Your task to perform on an android device: open app "Instagram" (install if not already installed) Image 0: 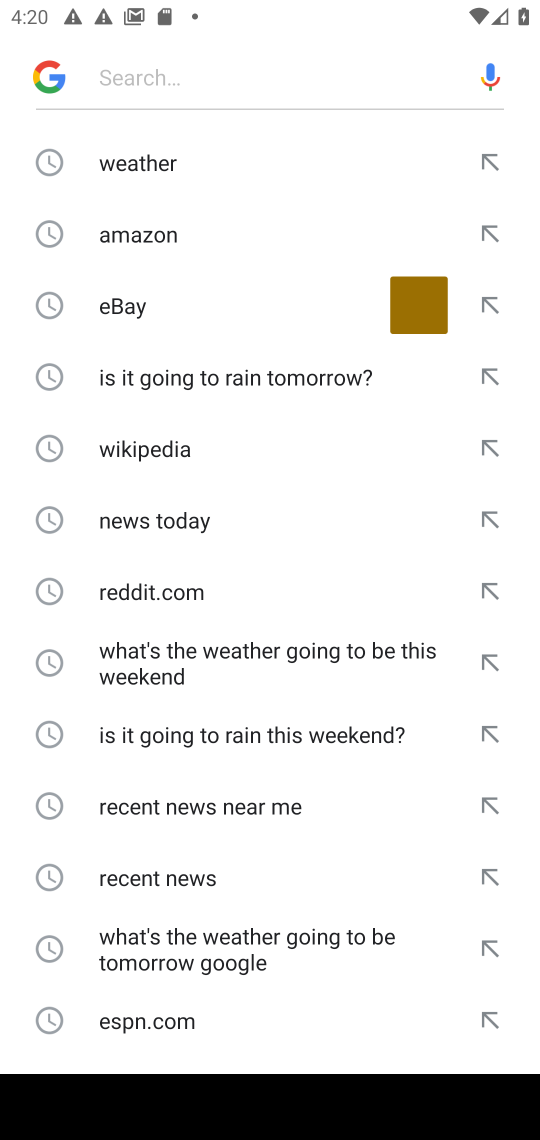
Step 0: press home button
Your task to perform on an android device: open app "Instagram" (install if not already installed) Image 1: 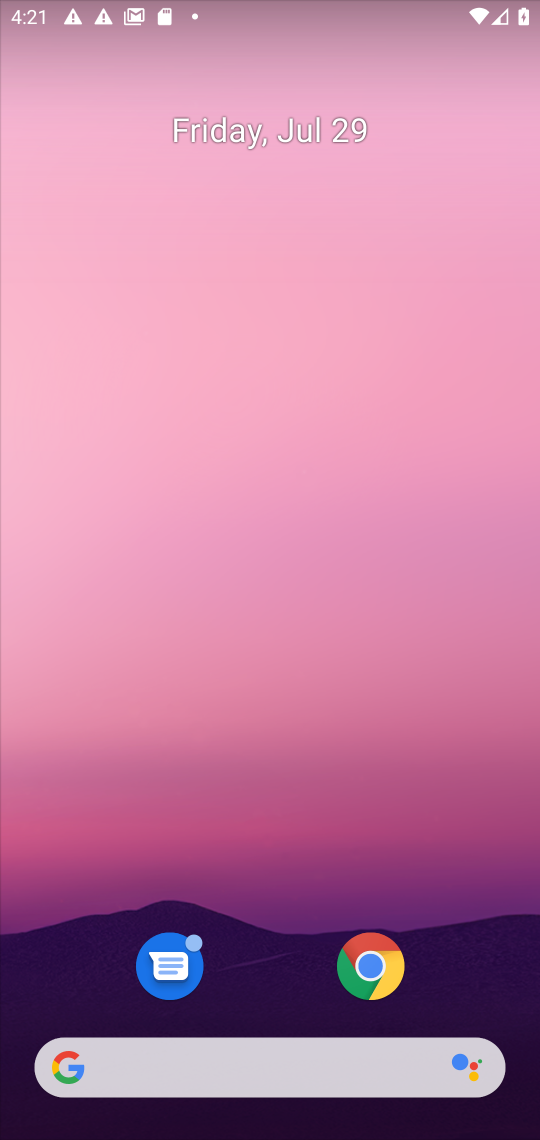
Step 1: drag from (250, 969) to (291, 4)
Your task to perform on an android device: open app "Instagram" (install if not already installed) Image 2: 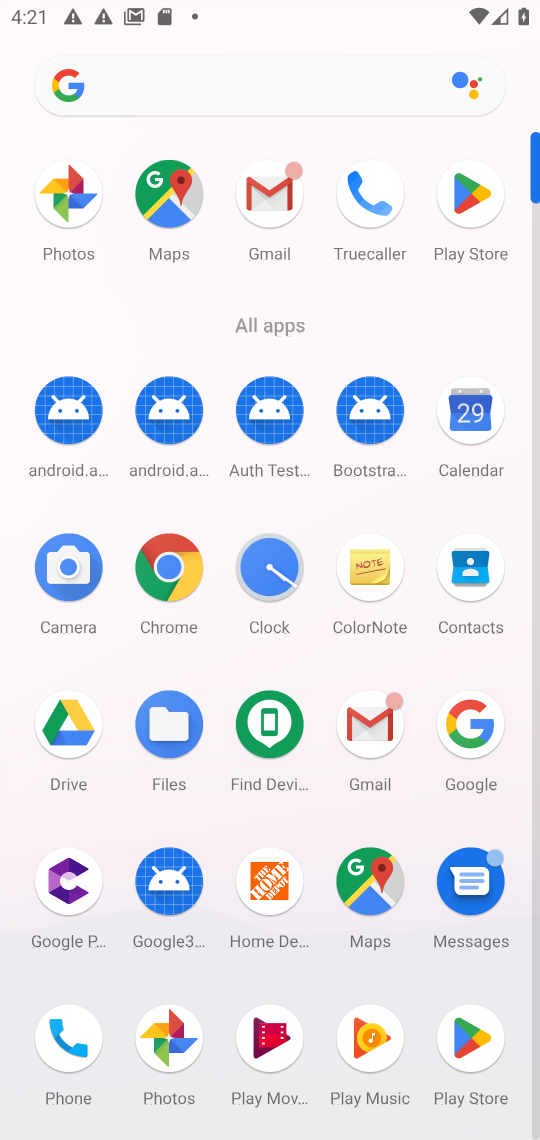
Step 2: click (471, 1068)
Your task to perform on an android device: open app "Instagram" (install if not already installed) Image 3: 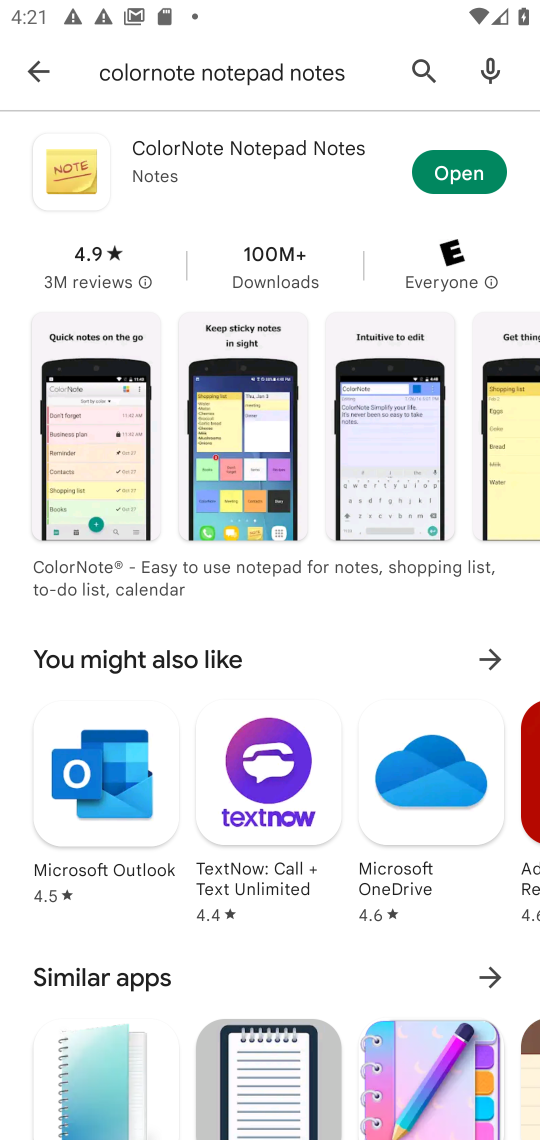
Step 3: click (188, 75)
Your task to perform on an android device: open app "Instagram" (install if not already installed) Image 4: 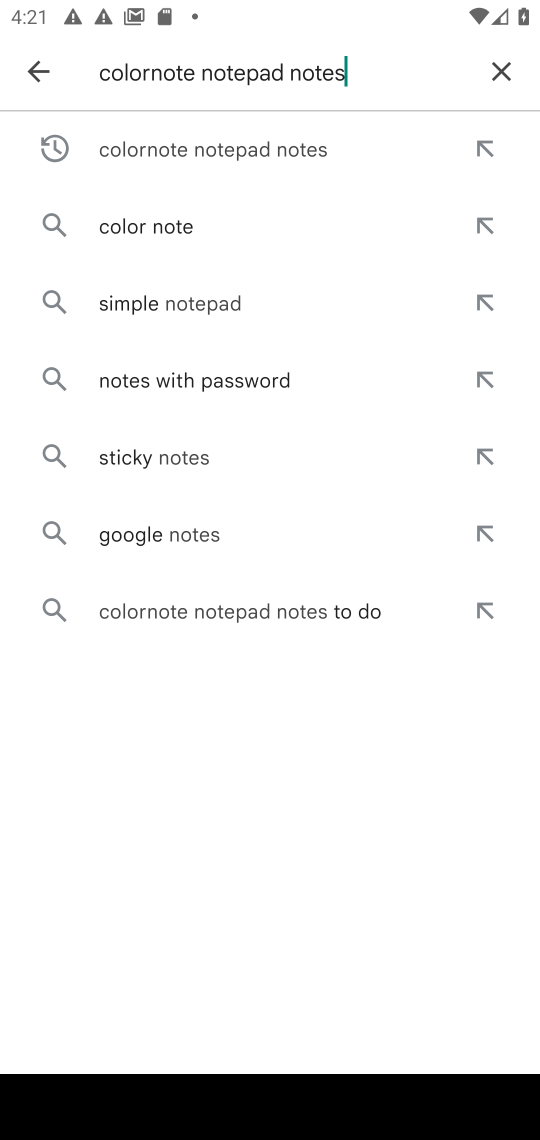
Step 4: click (492, 71)
Your task to perform on an android device: open app "Instagram" (install if not already installed) Image 5: 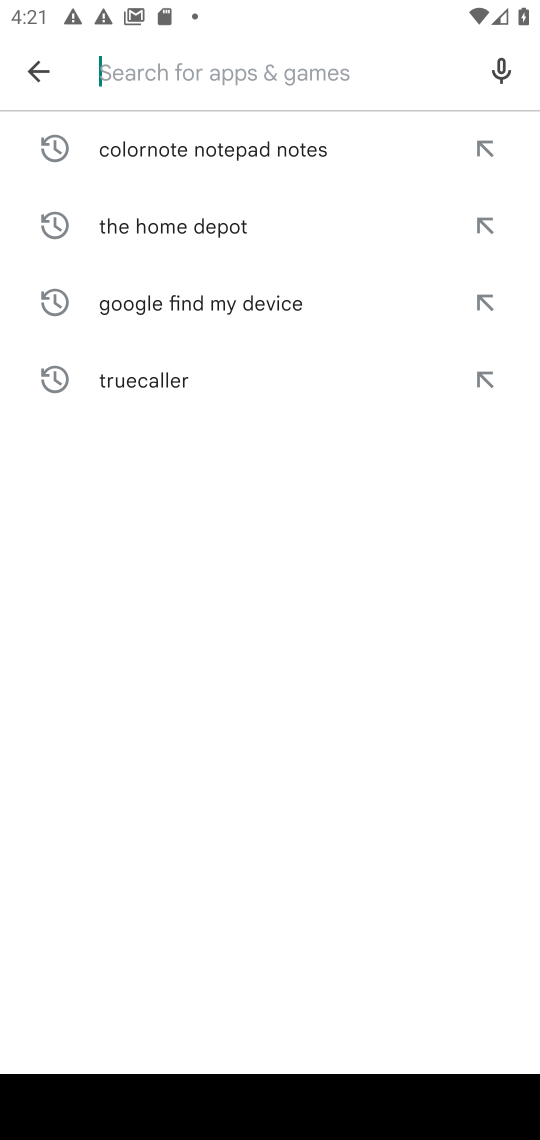
Step 5: type "Instagram"
Your task to perform on an android device: open app "Instagram" (install if not already installed) Image 6: 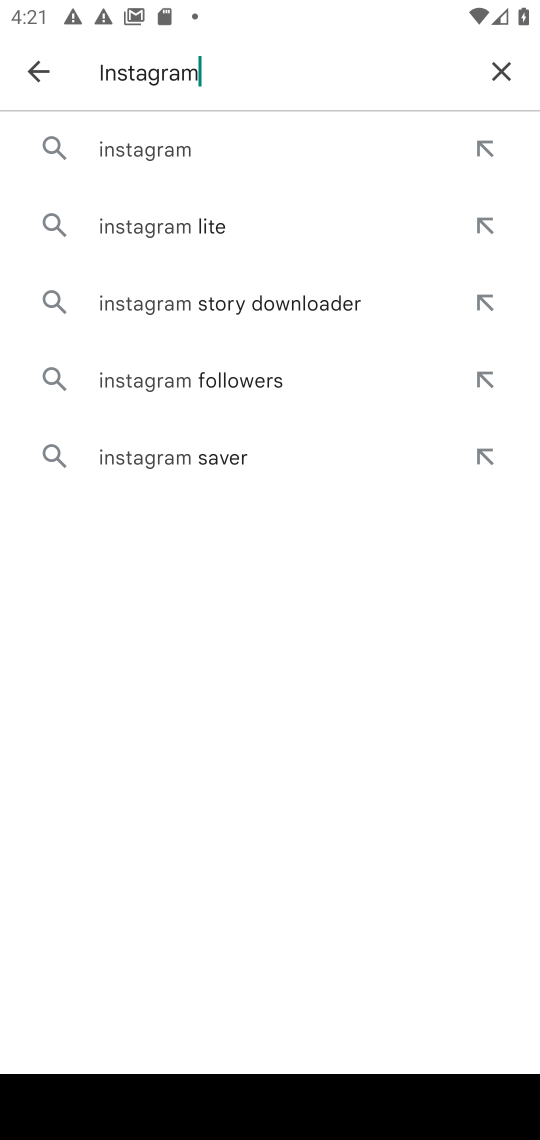
Step 6: click (117, 134)
Your task to perform on an android device: open app "Instagram" (install if not already installed) Image 7: 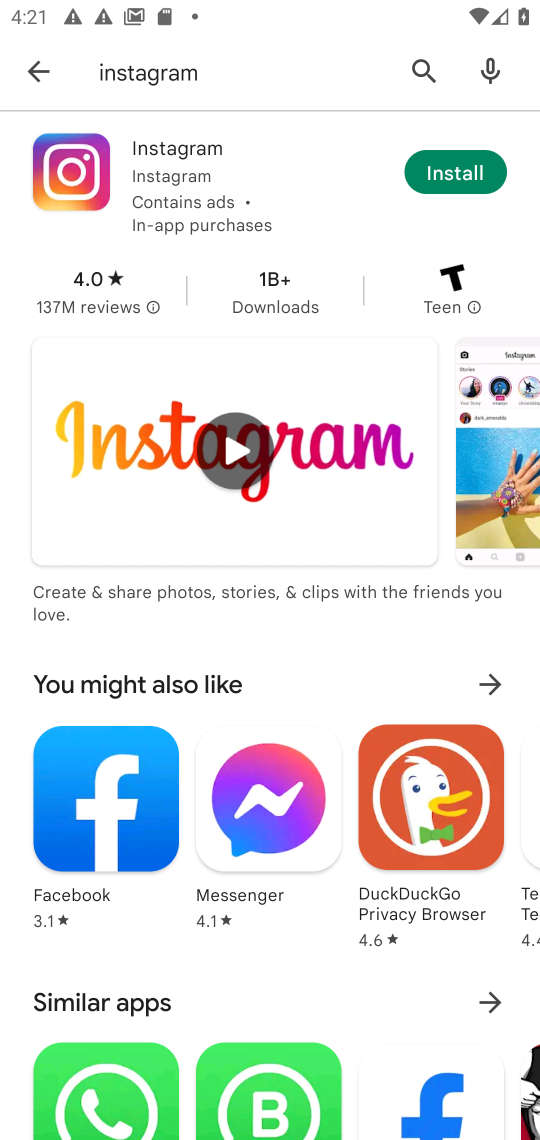
Step 7: click (448, 171)
Your task to perform on an android device: open app "Instagram" (install if not already installed) Image 8: 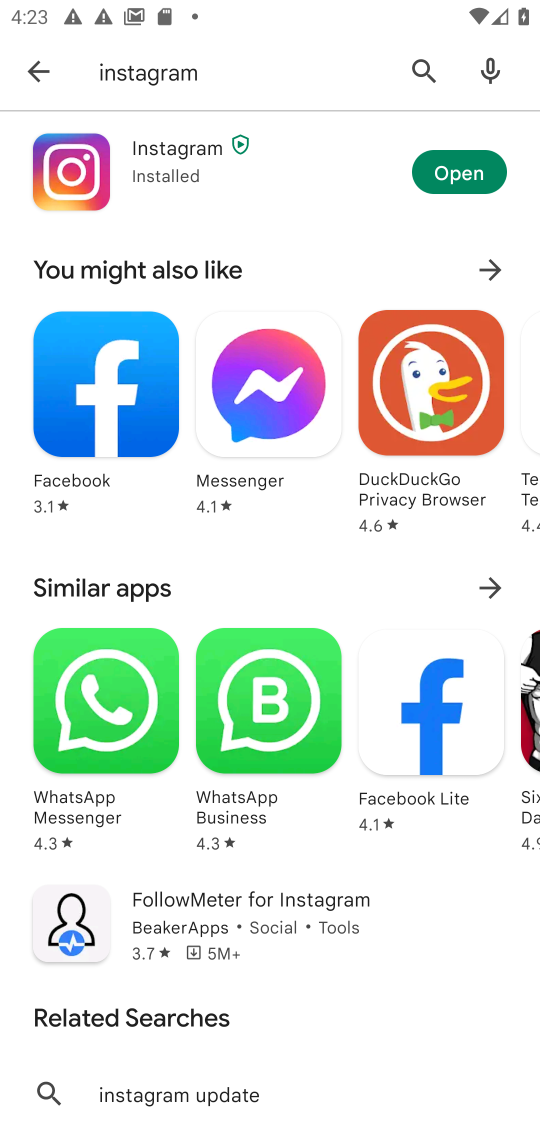
Step 8: click (438, 169)
Your task to perform on an android device: open app "Instagram" (install if not already installed) Image 9: 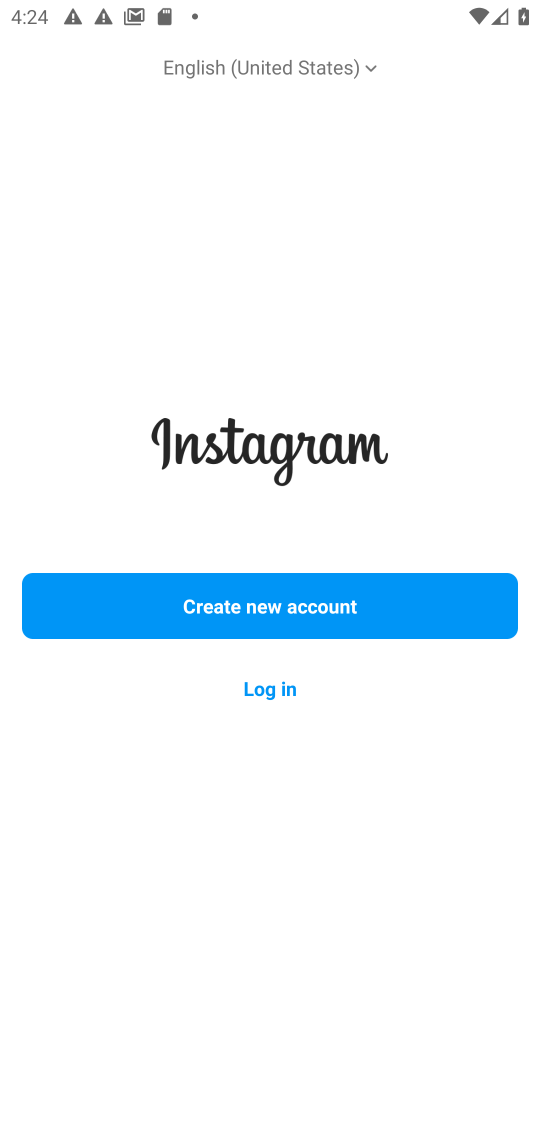
Step 9: task complete